Your task to perform on an android device: Open Yahoo.com Image 0: 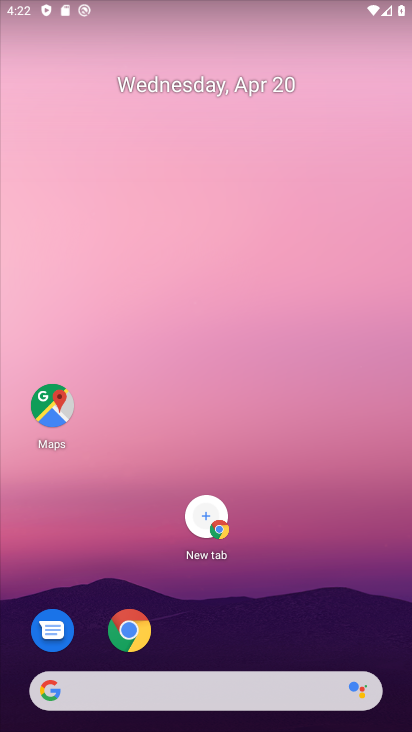
Step 0: drag from (289, 662) to (82, 42)
Your task to perform on an android device: Open Yahoo.com Image 1: 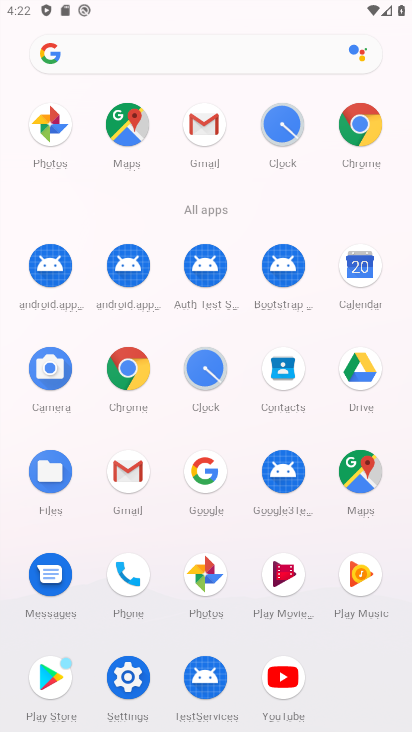
Step 1: click (119, 373)
Your task to perform on an android device: Open Yahoo.com Image 2: 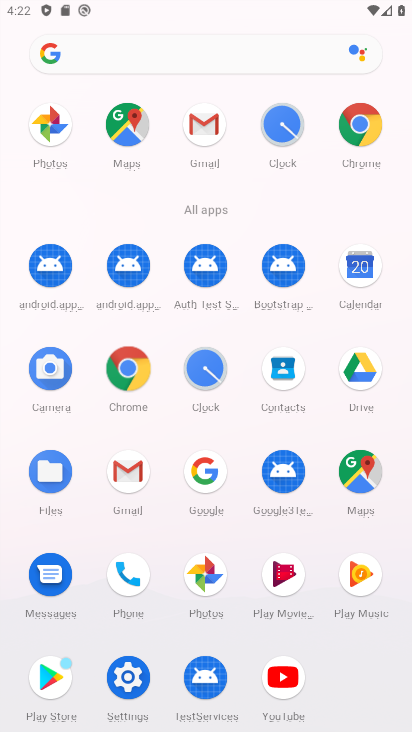
Step 2: click (119, 373)
Your task to perform on an android device: Open Yahoo.com Image 3: 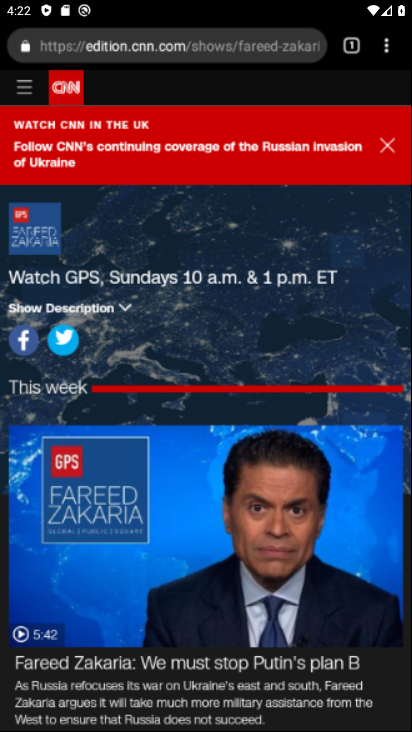
Step 3: click (118, 374)
Your task to perform on an android device: Open Yahoo.com Image 4: 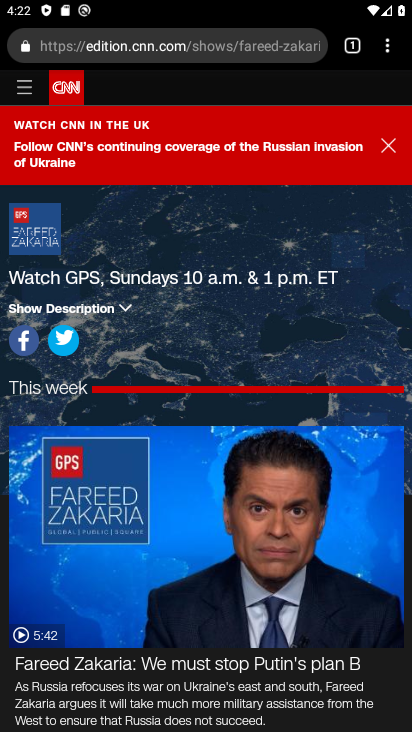
Step 4: drag from (383, 51) to (221, 83)
Your task to perform on an android device: Open Yahoo.com Image 5: 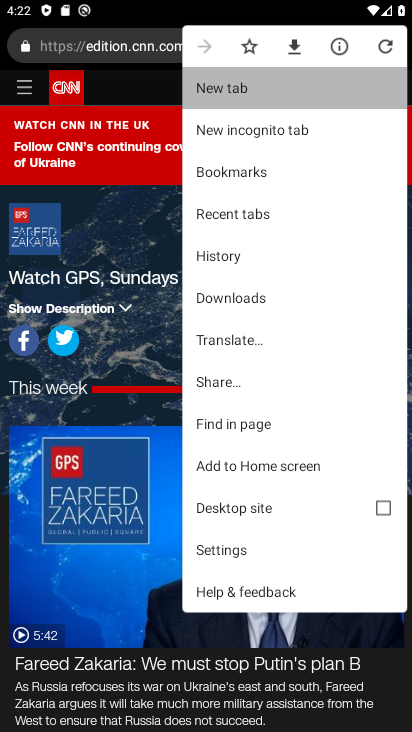
Step 5: click (220, 84)
Your task to perform on an android device: Open Yahoo.com Image 6: 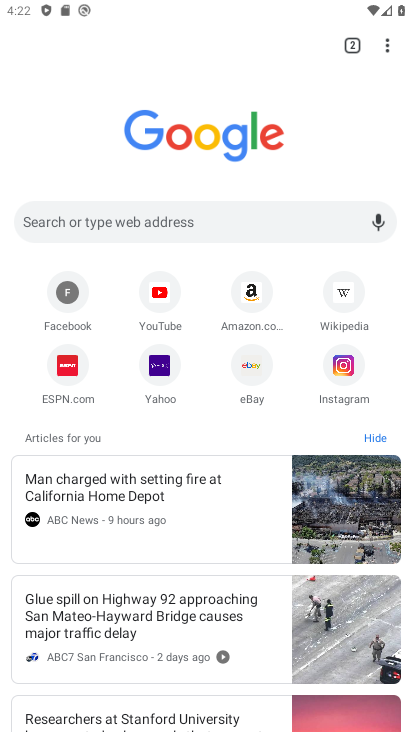
Step 6: click (166, 371)
Your task to perform on an android device: Open Yahoo.com Image 7: 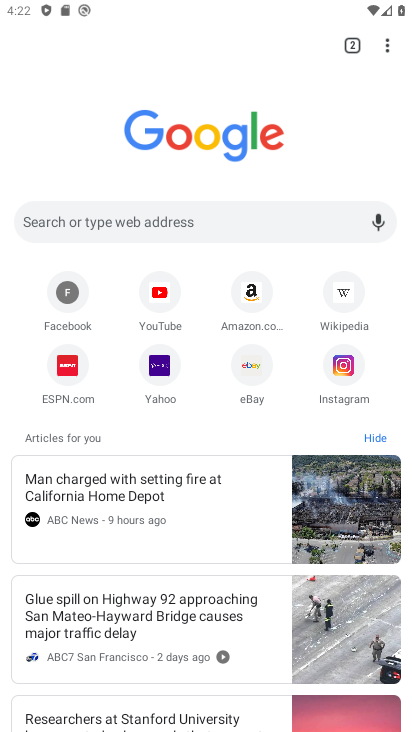
Step 7: click (162, 364)
Your task to perform on an android device: Open Yahoo.com Image 8: 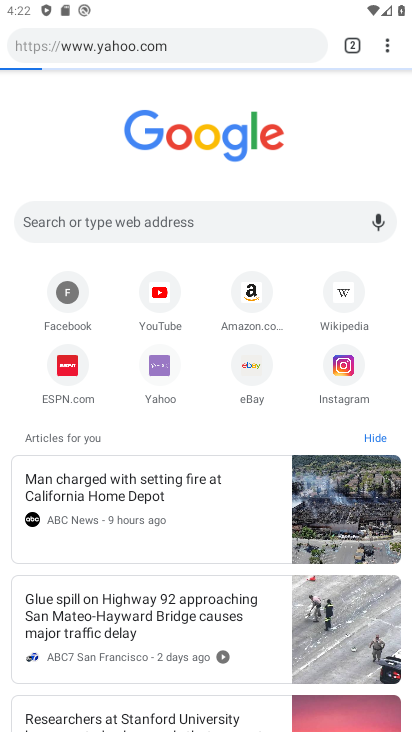
Step 8: click (151, 368)
Your task to perform on an android device: Open Yahoo.com Image 9: 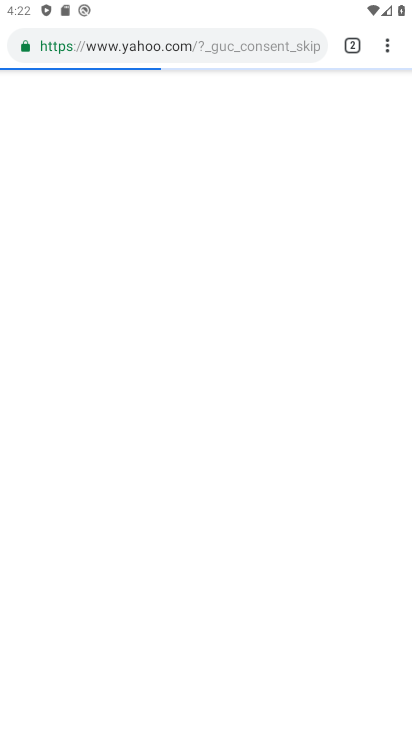
Step 9: click (154, 366)
Your task to perform on an android device: Open Yahoo.com Image 10: 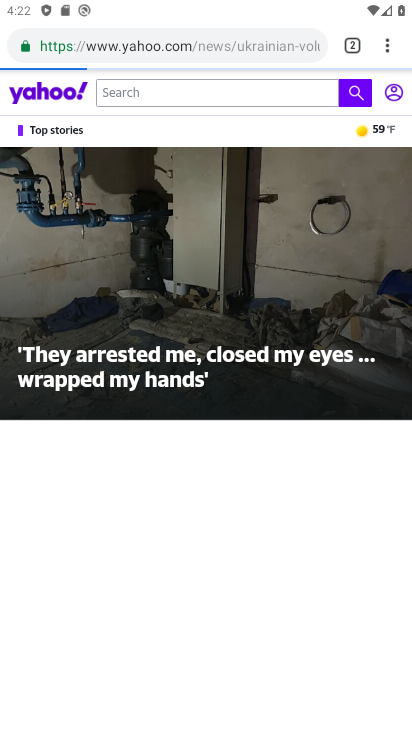
Step 10: task complete